Your task to perform on an android device: Go to Google Image 0: 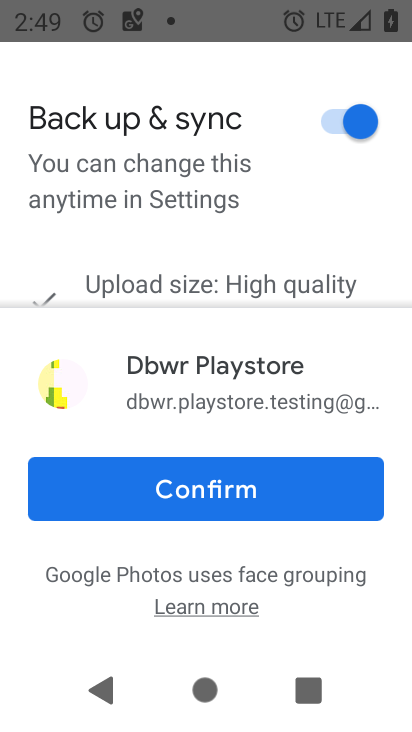
Step 0: press home button
Your task to perform on an android device: Go to Google Image 1: 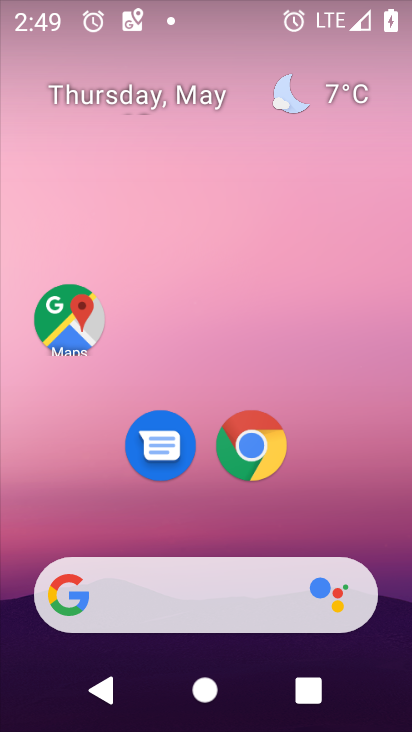
Step 1: drag from (365, 538) to (382, 10)
Your task to perform on an android device: Go to Google Image 2: 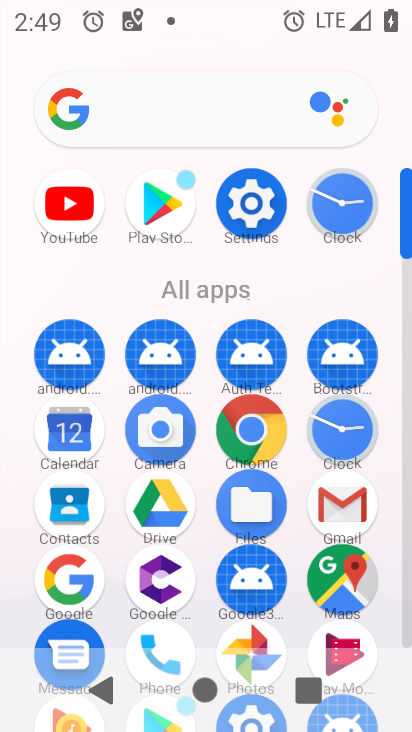
Step 2: click (80, 576)
Your task to perform on an android device: Go to Google Image 3: 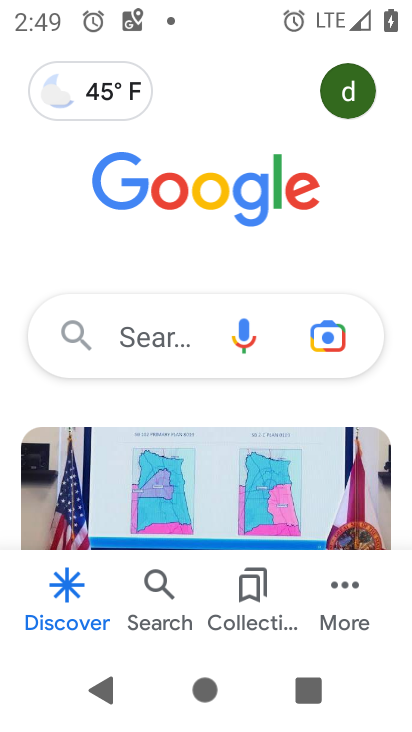
Step 3: task complete